Your task to perform on an android device: Show me recent news Image 0: 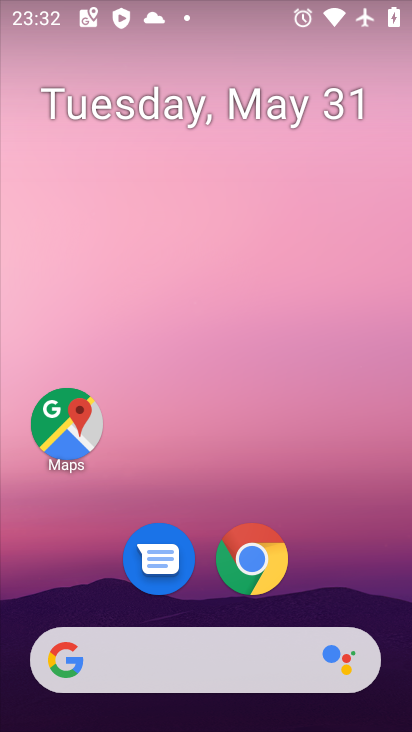
Step 0: drag from (324, 577) to (296, 94)
Your task to perform on an android device: Show me recent news Image 1: 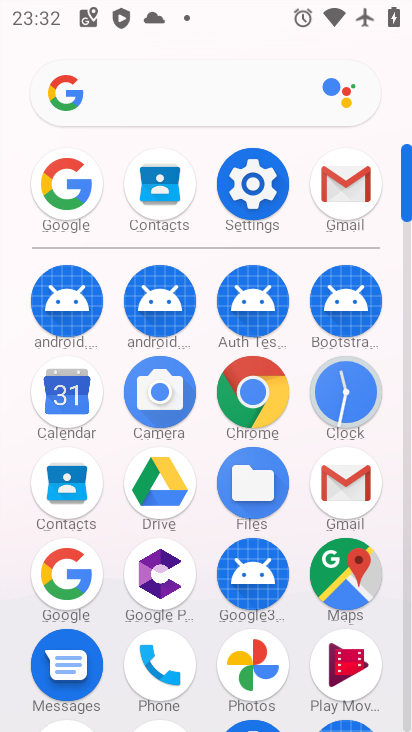
Step 1: click (62, 566)
Your task to perform on an android device: Show me recent news Image 2: 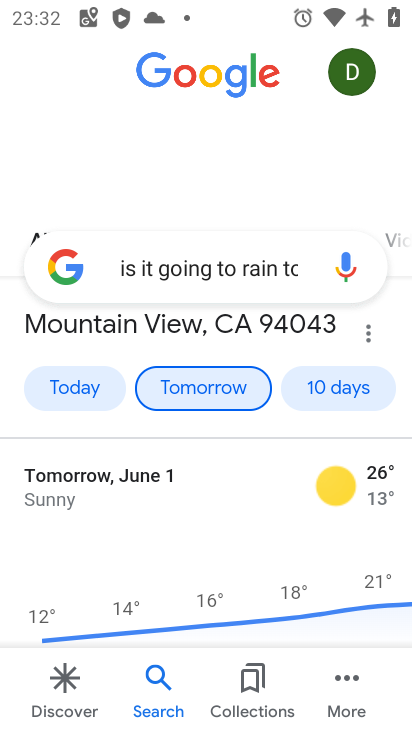
Step 2: click (295, 272)
Your task to perform on an android device: Show me recent news Image 3: 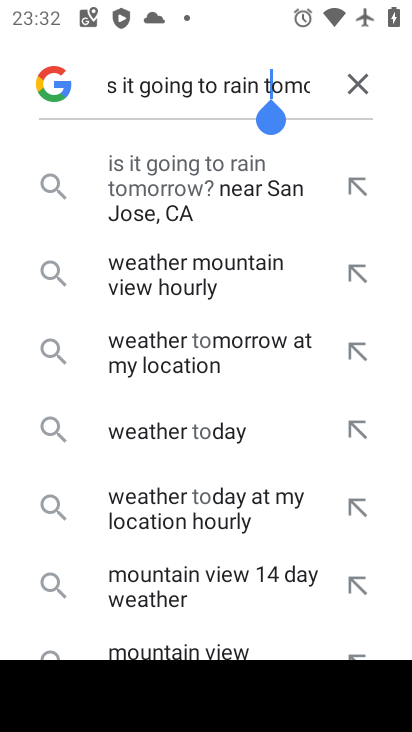
Step 3: click (361, 74)
Your task to perform on an android device: Show me recent news Image 4: 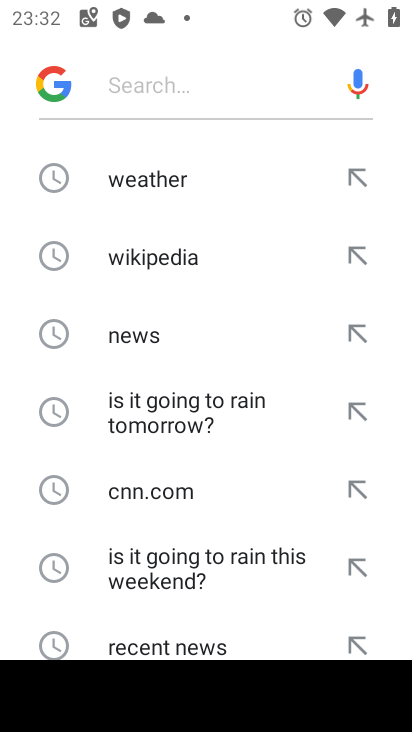
Step 4: drag from (203, 560) to (202, 365)
Your task to perform on an android device: Show me recent news Image 5: 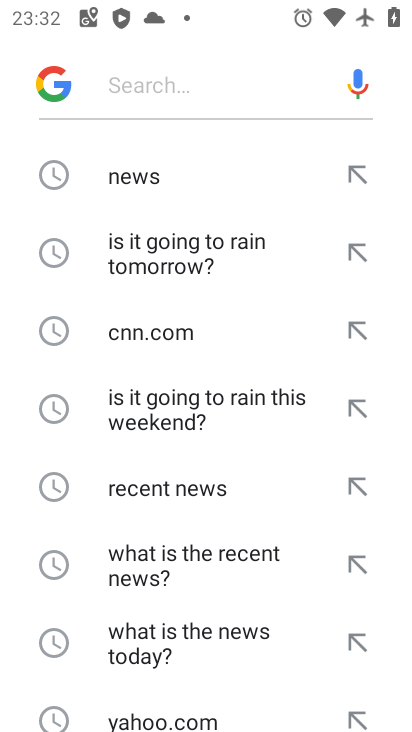
Step 5: click (202, 478)
Your task to perform on an android device: Show me recent news Image 6: 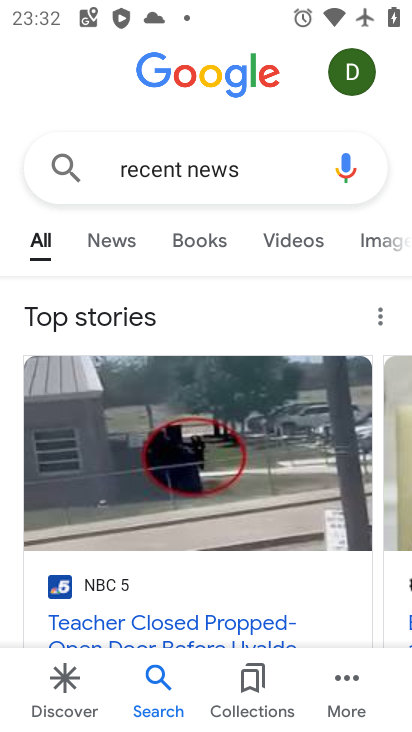
Step 6: task complete